Your task to perform on an android device: refresh tabs in the chrome app Image 0: 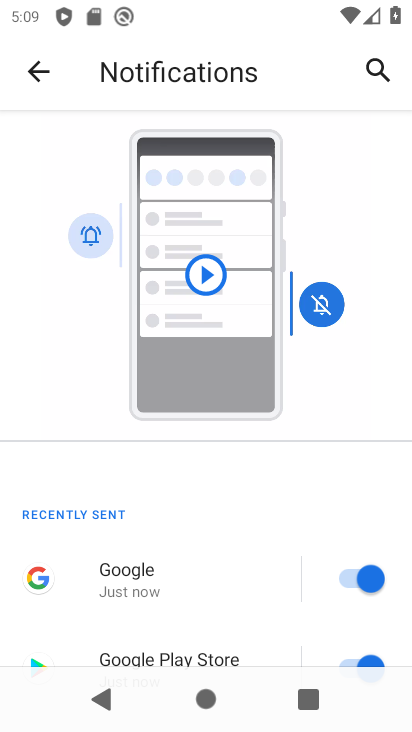
Step 0: press home button
Your task to perform on an android device: refresh tabs in the chrome app Image 1: 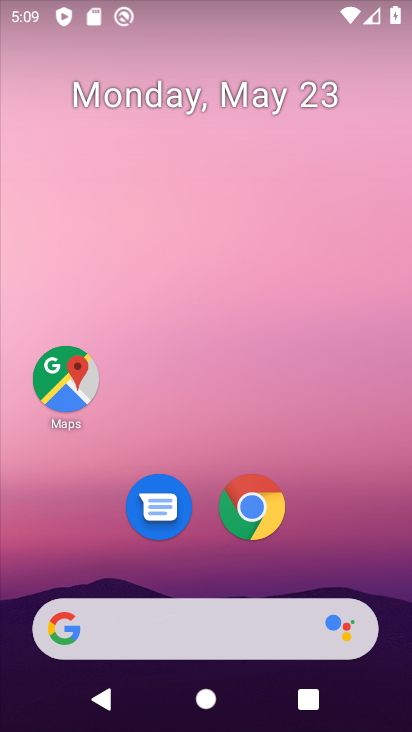
Step 1: click (249, 495)
Your task to perform on an android device: refresh tabs in the chrome app Image 2: 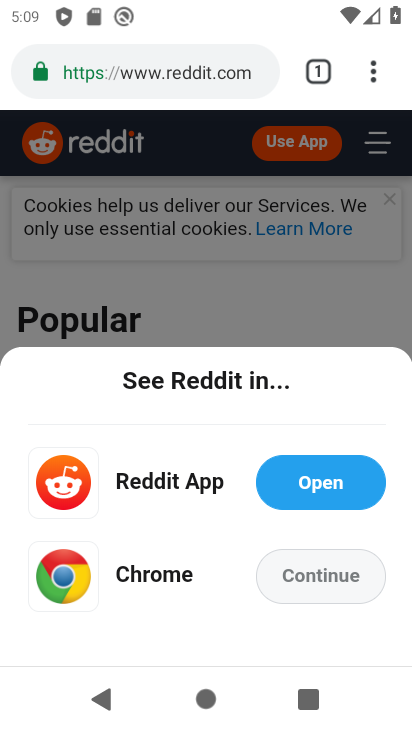
Step 2: click (372, 75)
Your task to perform on an android device: refresh tabs in the chrome app Image 3: 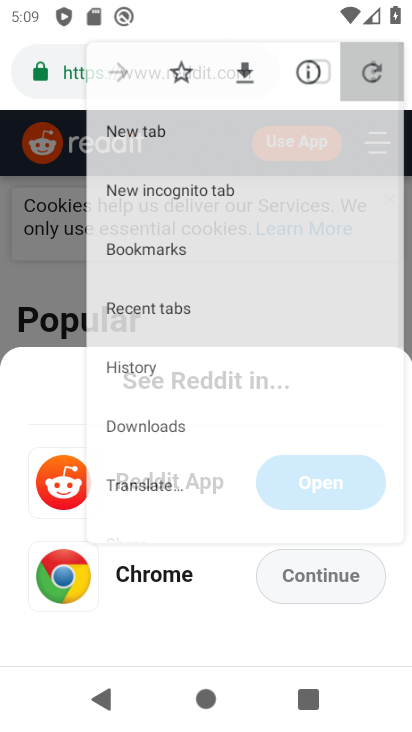
Step 3: click (372, 75)
Your task to perform on an android device: refresh tabs in the chrome app Image 4: 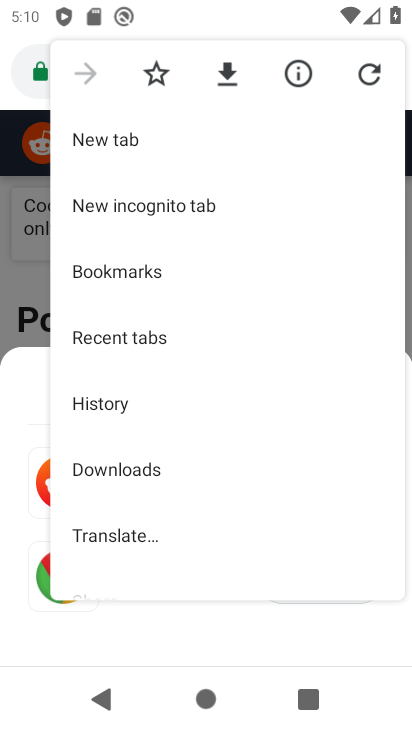
Step 4: task complete